Your task to perform on an android device: change the clock display to analog Image 0: 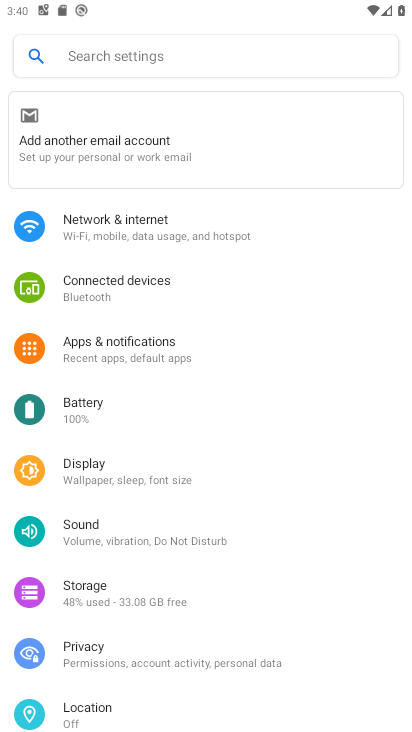
Step 0: press home button
Your task to perform on an android device: change the clock display to analog Image 1: 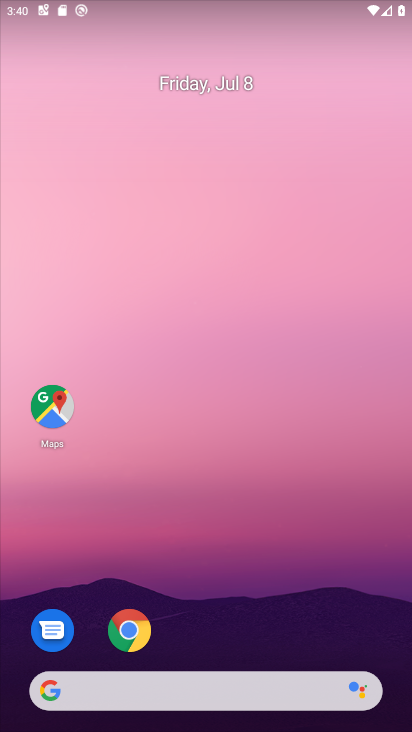
Step 1: drag from (241, 549) to (265, 77)
Your task to perform on an android device: change the clock display to analog Image 2: 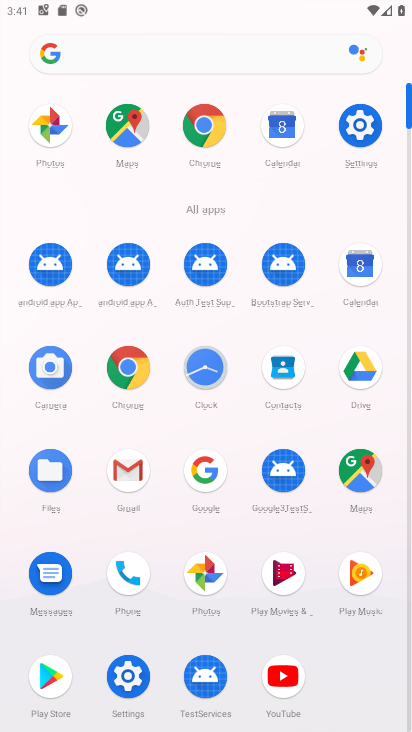
Step 2: click (216, 359)
Your task to perform on an android device: change the clock display to analog Image 3: 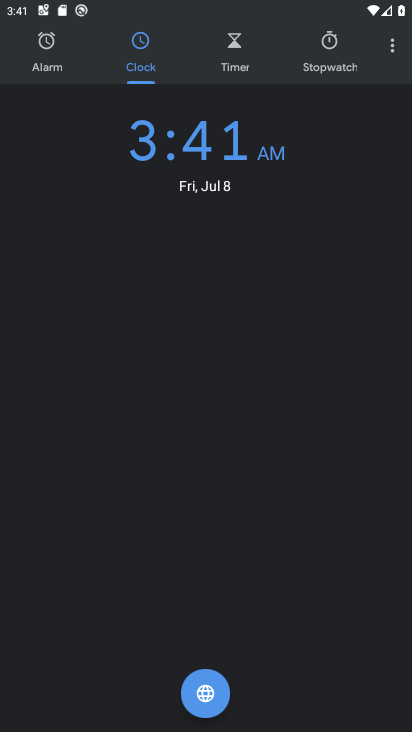
Step 3: click (388, 44)
Your task to perform on an android device: change the clock display to analog Image 4: 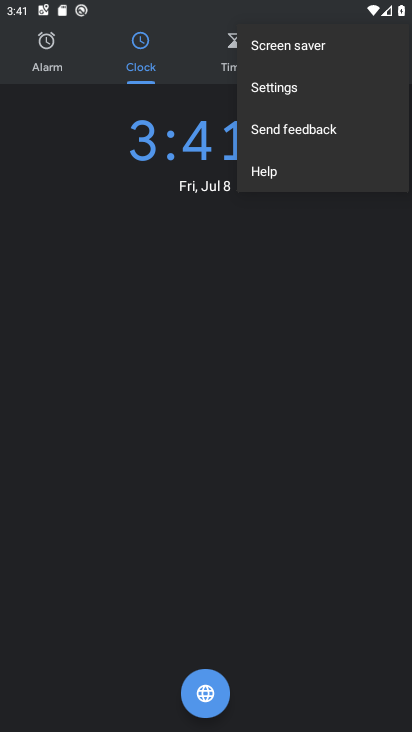
Step 4: click (297, 94)
Your task to perform on an android device: change the clock display to analog Image 5: 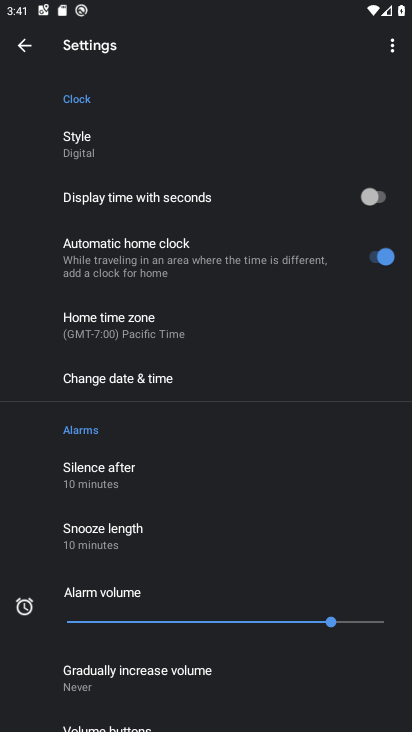
Step 5: click (87, 150)
Your task to perform on an android device: change the clock display to analog Image 6: 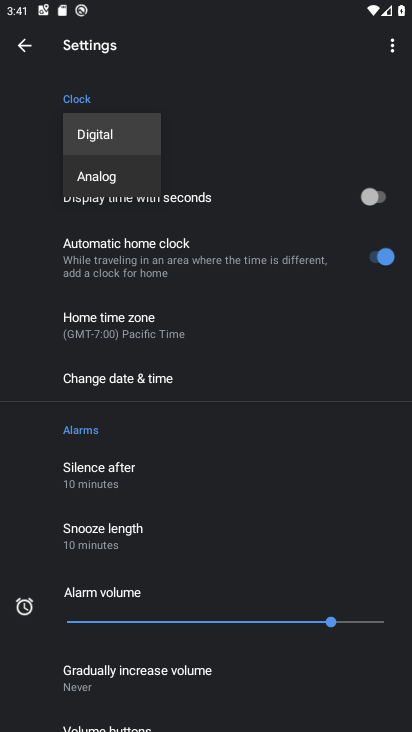
Step 6: click (98, 188)
Your task to perform on an android device: change the clock display to analog Image 7: 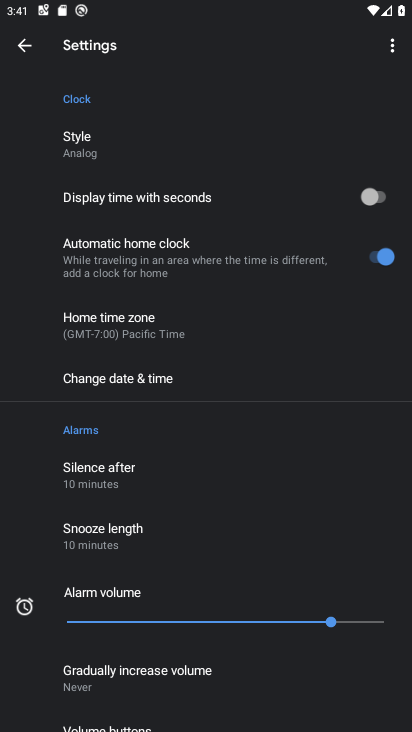
Step 7: task complete